Your task to perform on an android device: turn off wifi Image 0: 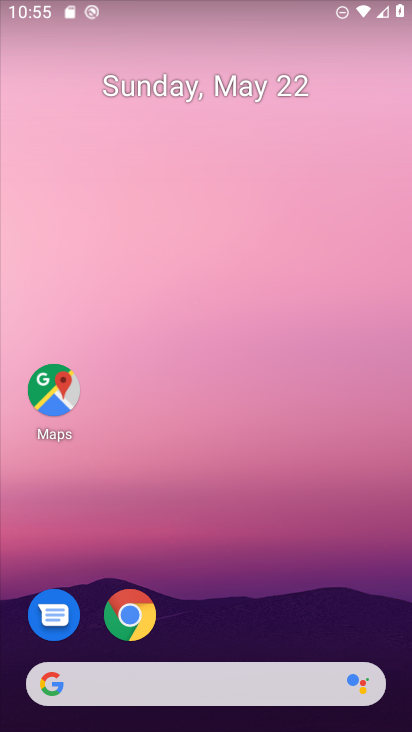
Step 0: drag from (225, 526) to (229, 90)
Your task to perform on an android device: turn off wifi Image 1: 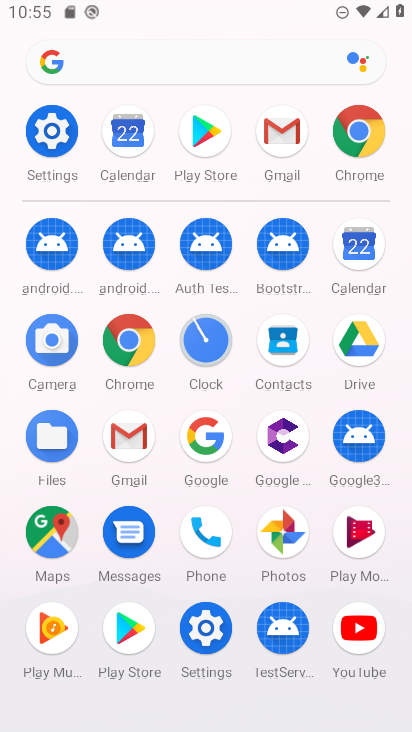
Step 1: click (52, 134)
Your task to perform on an android device: turn off wifi Image 2: 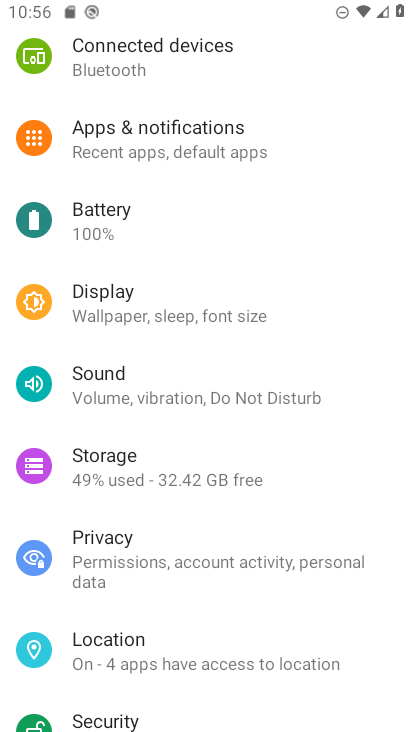
Step 2: drag from (209, 167) to (310, 604)
Your task to perform on an android device: turn off wifi Image 3: 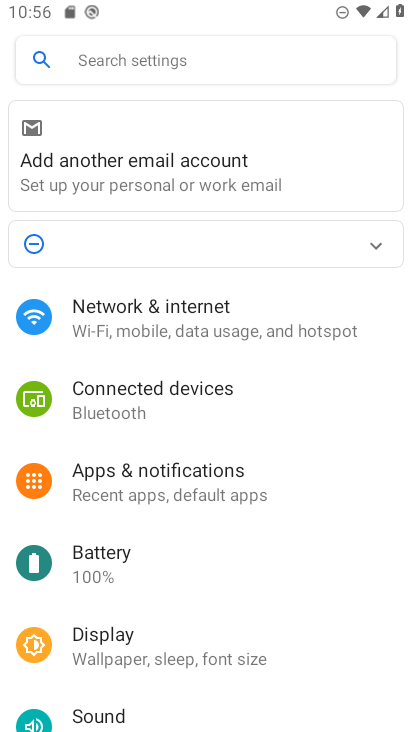
Step 3: click (182, 332)
Your task to perform on an android device: turn off wifi Image 4: 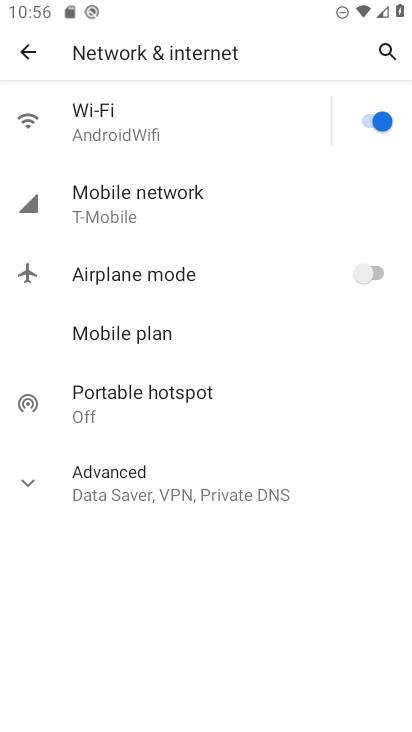
Step 4: click (374, 117)
Your task to perform on an android device: turn off wifi Image 5: 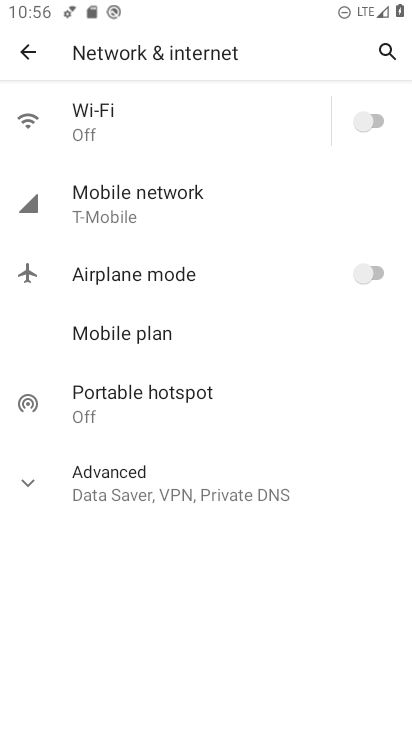
Step 5: task complete